Your task to perform on an android device: open chrome and create a bookmark for the current page Image 0: 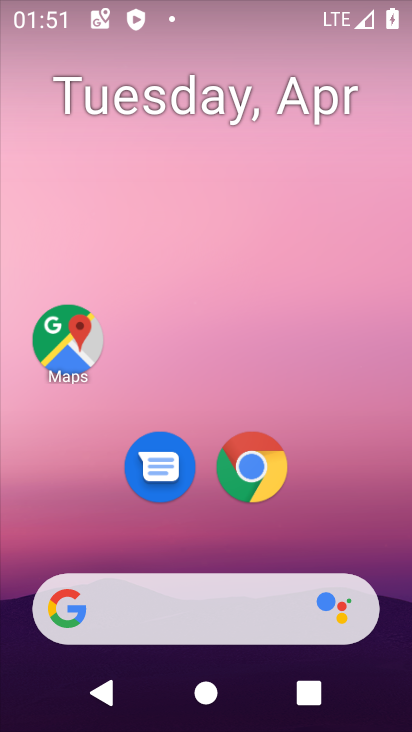
Step 0: drag from (393, 535) to (391, 168)
Your task to perform on an android device: open chrome and create a bookmark for the current page Image 1: 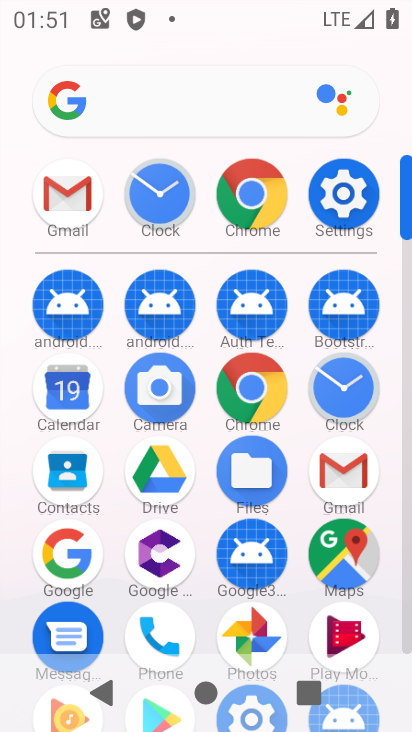
Step 1: click (264, 392)
Your task to perform on an android device: open chrome and create a bookmark for the current page Image 2: 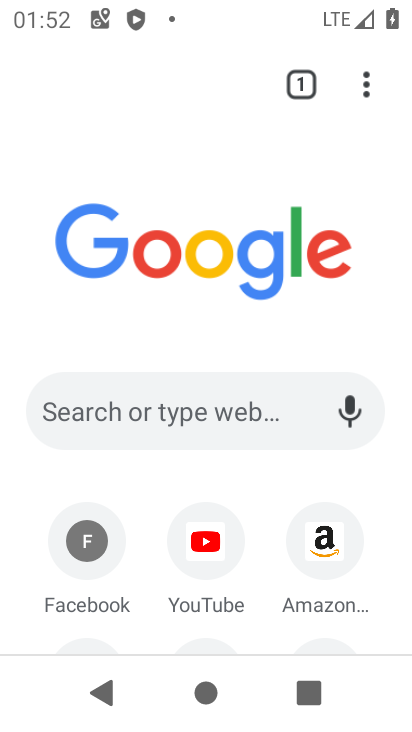
Step 2: click (365, 86)
Your task to perform on an android device: open chrome and create a bookmark for the current page Image 3: 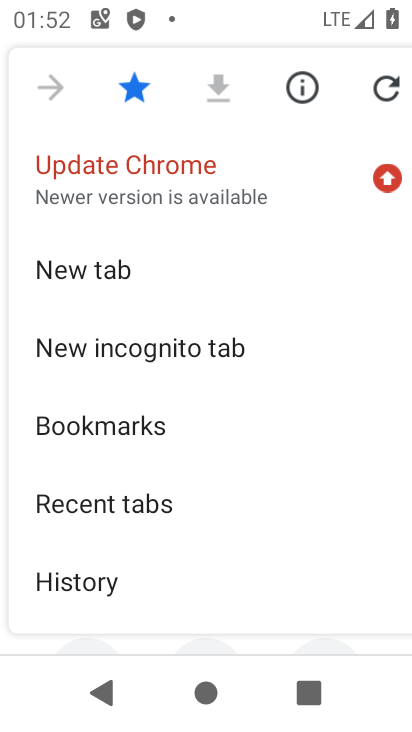
Step 3: click (126, 94)
Your task to perform on an android device: open chrome and create a bookmark for the current page Image 4: 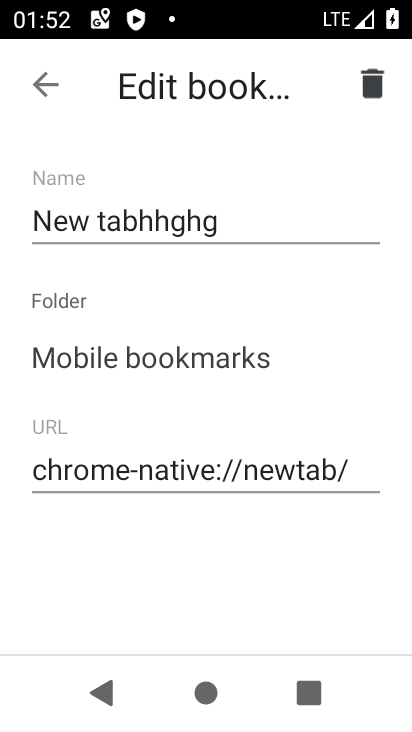
Step 4: click (256, 224)
Your task to perform on an android device: open chrome and create a bookmark for the current page Image 5: 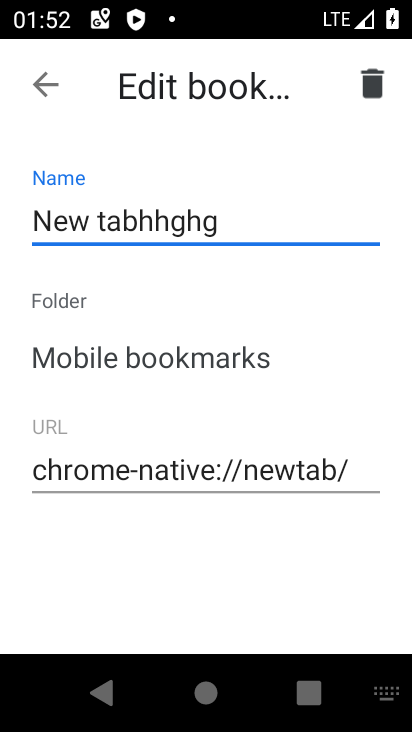
Step 5: type "g"
Your task to perform on an android device: open chrome and create a bookmark for the current page Image 6: 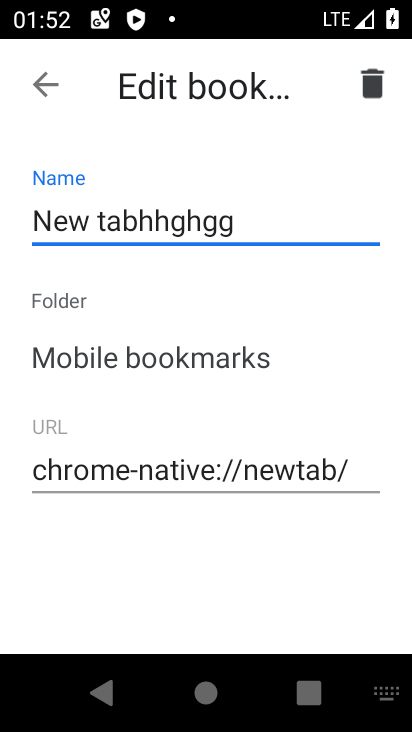
Step 6: click (42, 88)
Your task to perform on an android device: open chrome and create a bookmark for the current page Image 7: 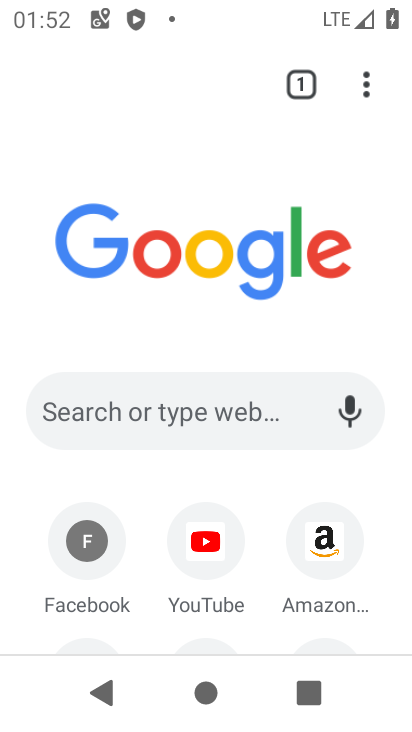
Step 7: task complete